Your task to perform on an android device: empty trash in google photos Image 0: 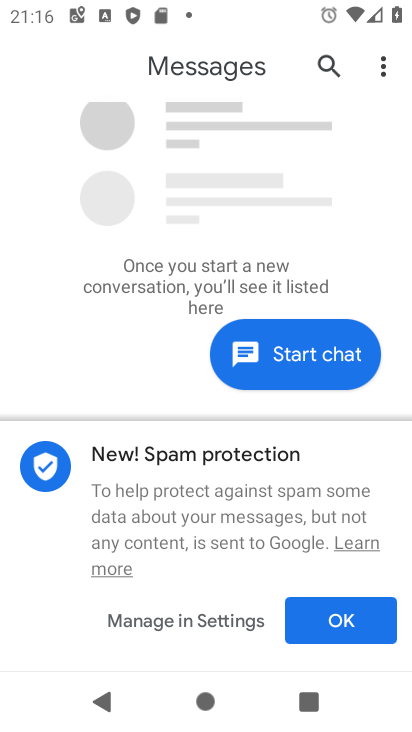
Step 0: press home button
Your task to perform on an android device: empty trash in google photos Image 1: 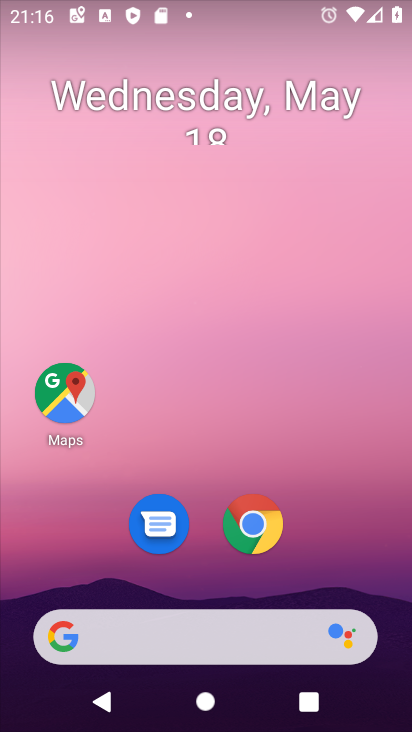
Step 1: drag from (317, 548) to (268, 23)
Your task to perform on an android device: empty trash in google photos Image 2: 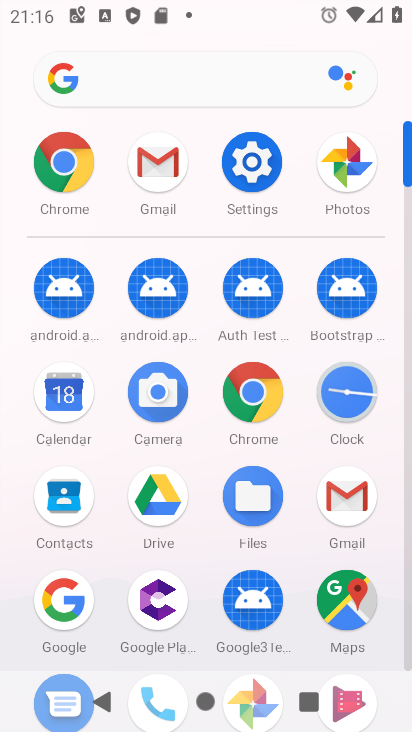
Step 2: drag from (281, 424) to (289, 140)
Your task to perform on an android device: empty trash in google photos Image 3: 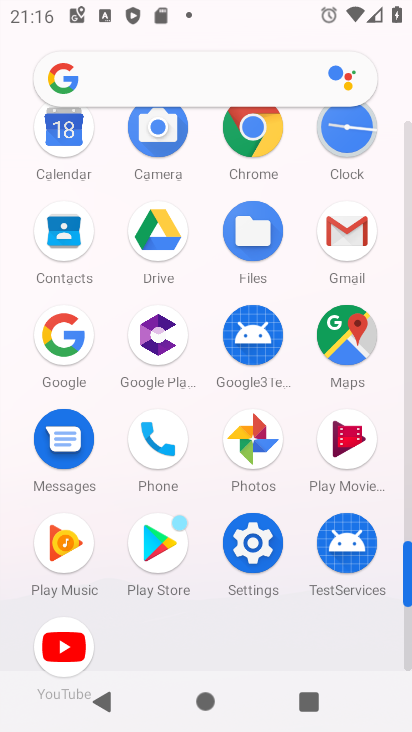
Step 3: click (250, 425)
Your task to perform on an android device: empty trash in google photos Image 4: 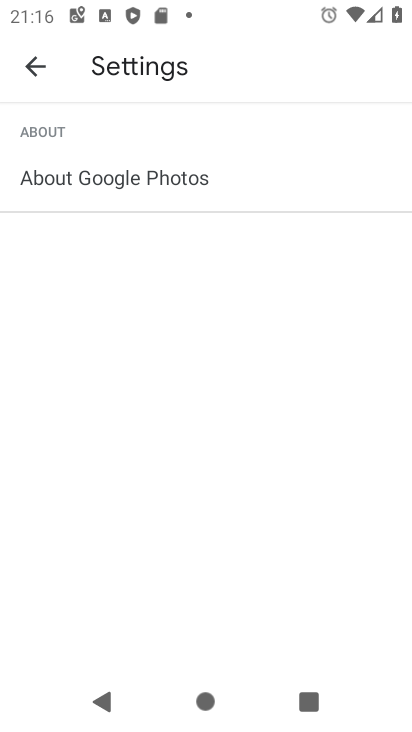
Step 4: click (37, 59)
Your task to perform on an android device: empty trash in google photos Image 5: 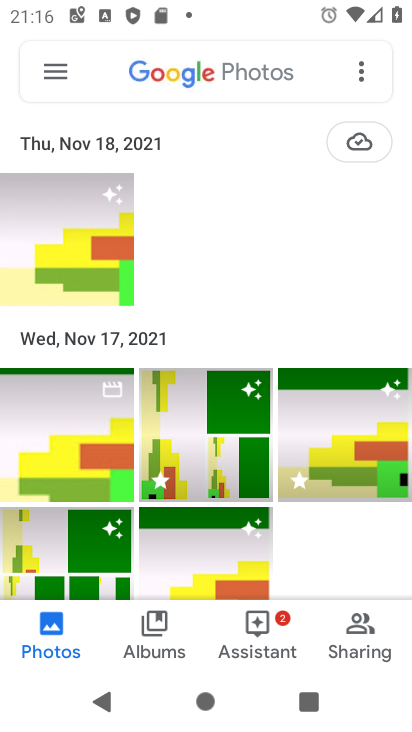
Step 5: click (57, 60)
Your task to perform on an android device: empty trash in google photos Image 6: 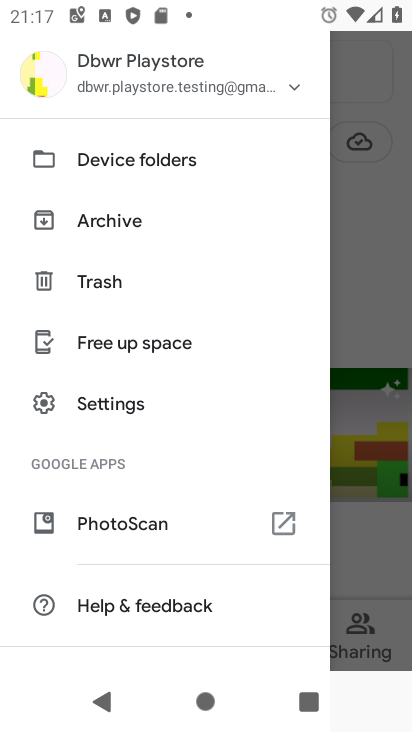
Step 6: click (88, 260)
Your task to perform on an android device: empty trash in google photos Image 7: 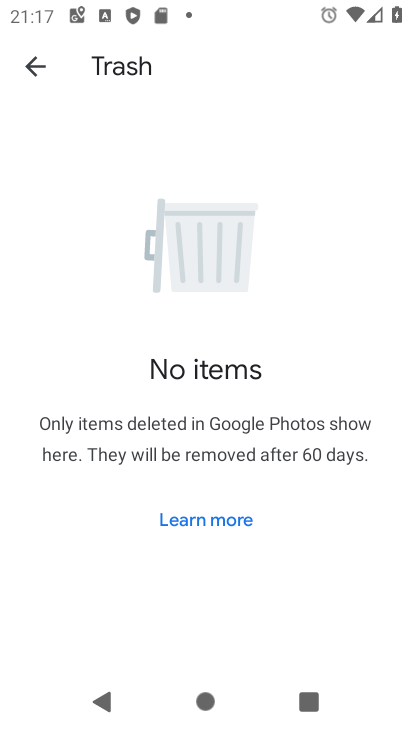
Step 7: task complete